Your task to perform on an android device: Open settings Image 0: 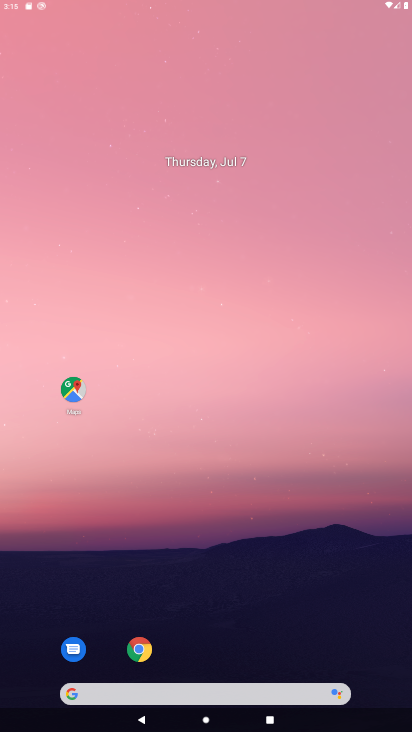
Step 0: click (278, 9)
Your task to perform on an android device: Open settings Image 1: 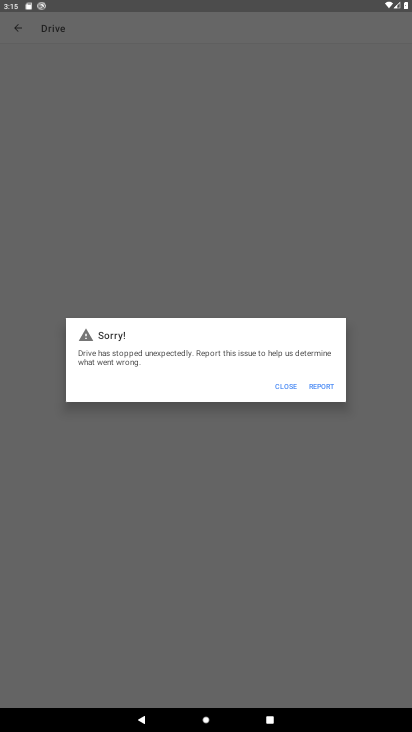
Step 1: press back button
Your task to perform on an android device: Open settings Image 2: 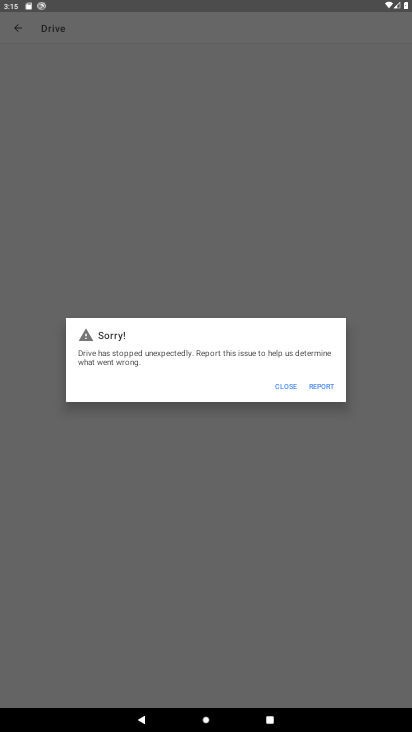
Step 2: press home button
Your task to perform on an android device: Open settings Image 3: 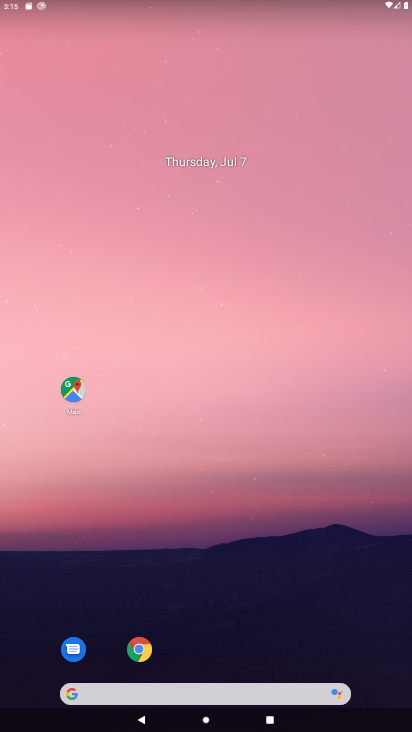
Step 3: drag from (202, 631) to (262, 2)
Your task to perform on an android device: Open settings Image 4: 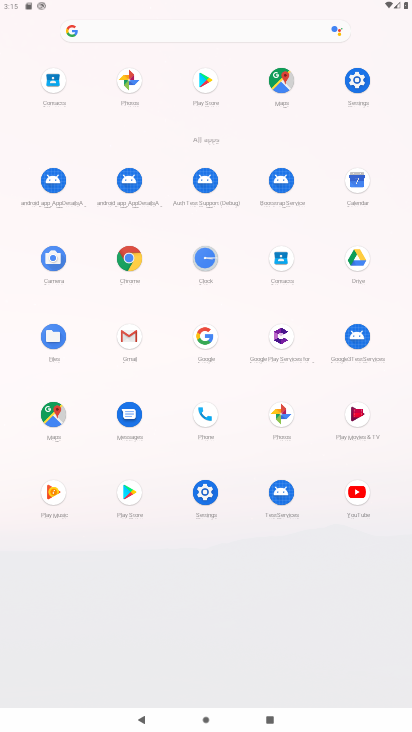
Step 4: click (356, 75)
Your task to perform on an android device: Open settings Image 5: 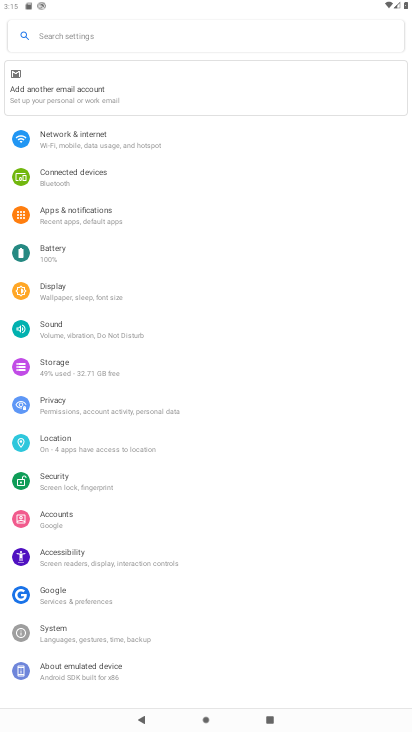
Step 5: task complete